Your task to perform on an android device: Show me recent news Image 0: 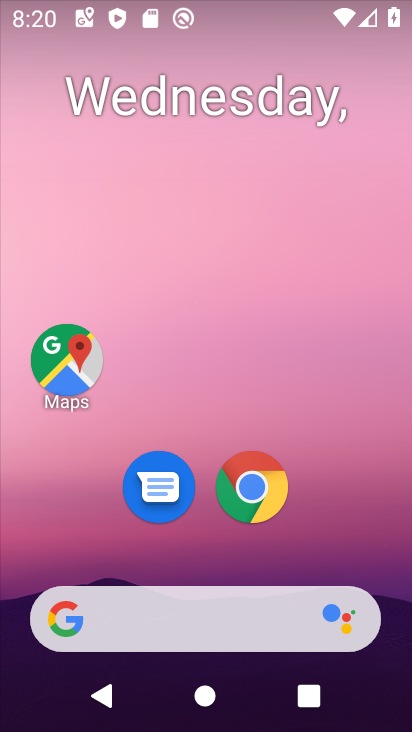
Step 0: drag from (271, 683) to (135, 44)
Your task to perform on an android device: Show me recent news Image 1: 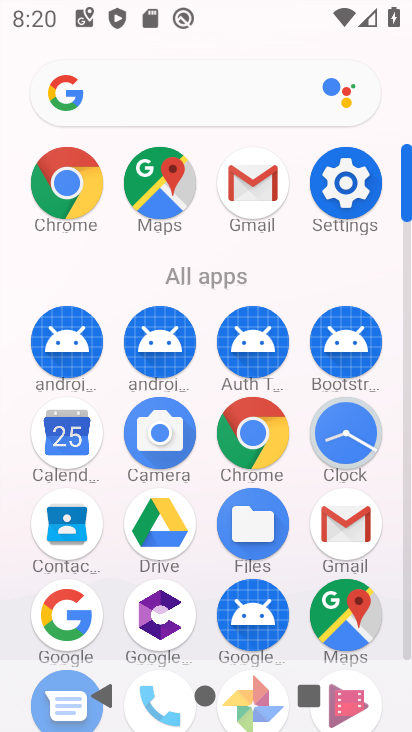
Step 1: press back button
Your task to perform on an android device: Show me recent news Image 2: 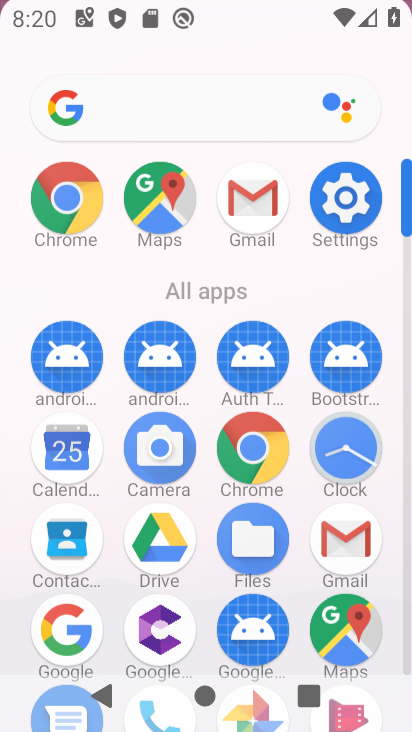
Step 2: press back button
Your task to perform on an android device: Show me recent news Image 3: 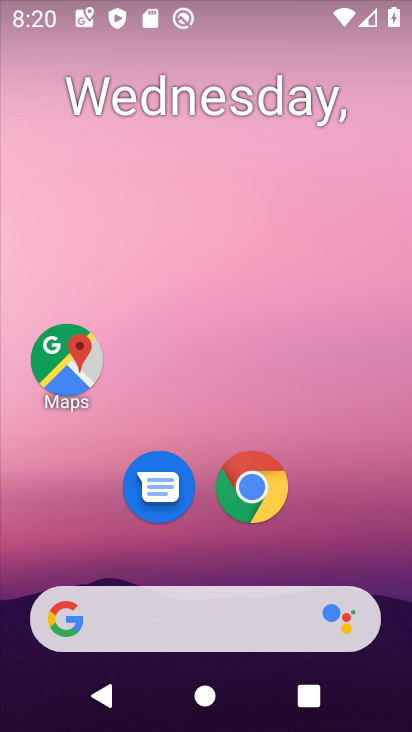
Step 3: press back button
Your task to perform on an android device: Show me recent news Image 4: 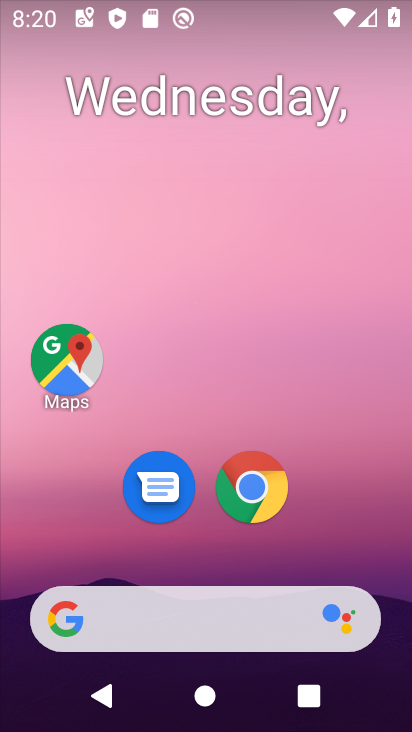
Step 4: press back button
Your task to perform on an android device: Show me recent news Image 5: 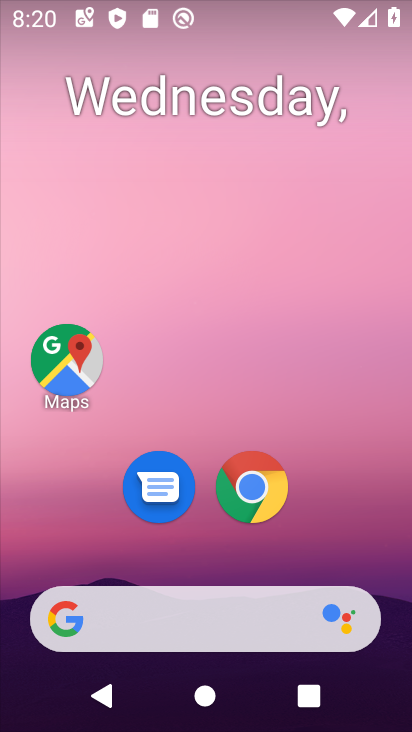
Step 5: drag from (3, 198) to (351, 362)
Your task to perform on an android device: Show me recent news Image 6: 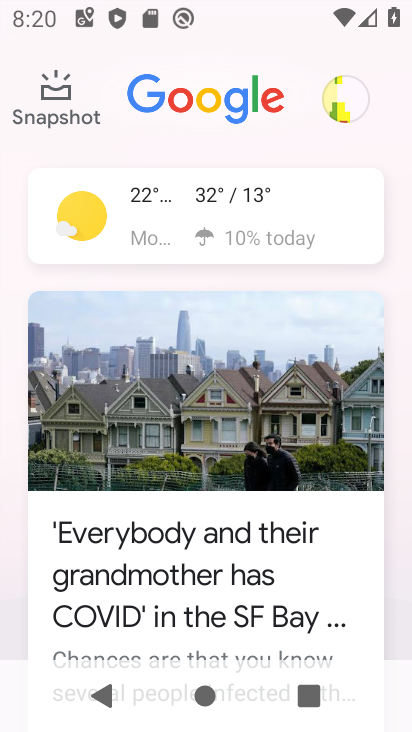
Step 6: drag from (235, 387) to (235, 122)
Your task to perform on an android device: Show me recent news Image 7: 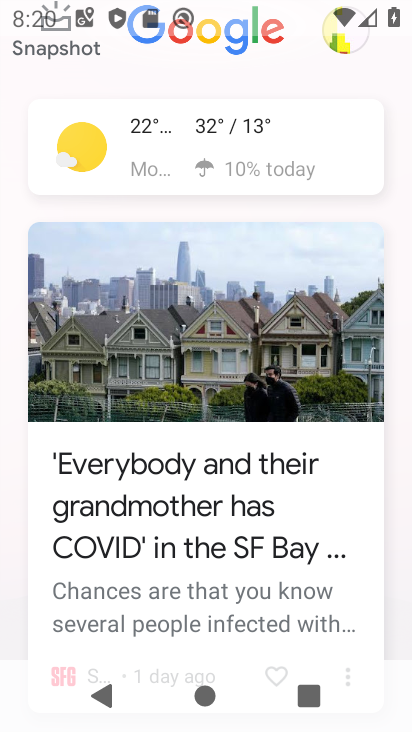
Step 7: drag from (283, 304) to (173, 91)
Your task to perform on an android device: Show me recent news Image 8: 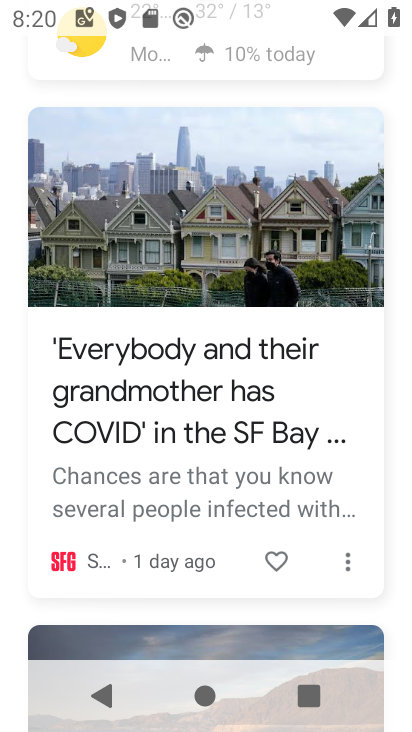
Step 8: drag from (151, 289) to (153, 44)
Your task to perform on an android device: Show me recent news Image 9: 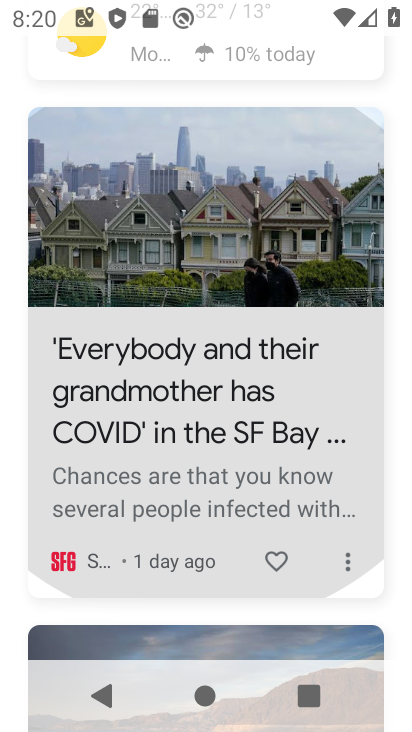
Step 9: drag from (189, 30) to (194, 107)
Your task to perform on an android device: Show me recent news Image 10: 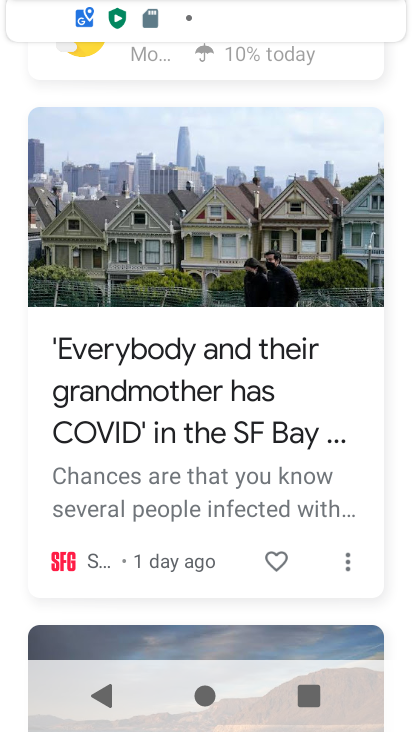
Step 10: drag from (175, 274) to (181, 128)
Your task to perform on an android device: Show me recent news Image 11: 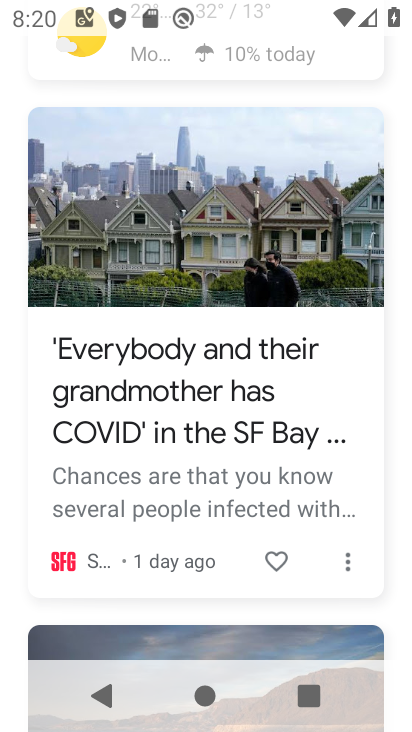
Step 11: click (235, 206)
Your task to perform on an android device: Show me recent news Image 12: 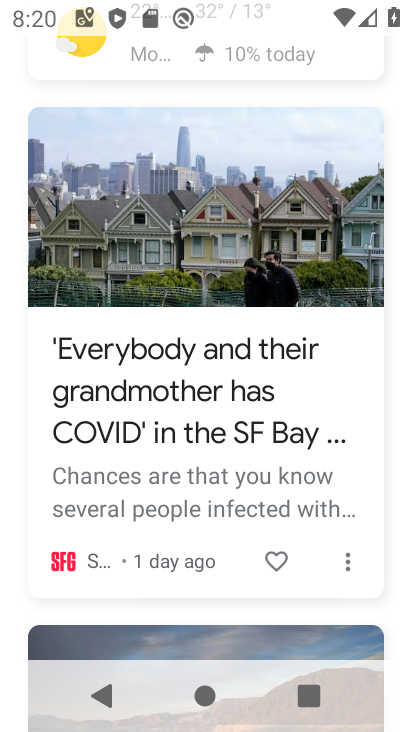
Step 12: task complete